Your task to perform on an android device: What's the weather? Image 0: 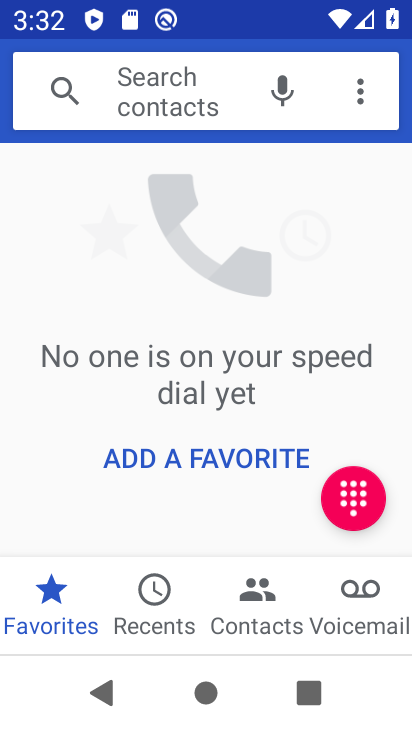
Step 0: drag from (211, 551) to (294, 22)
Your task to perform on an android device: What's the weather? Image 1: 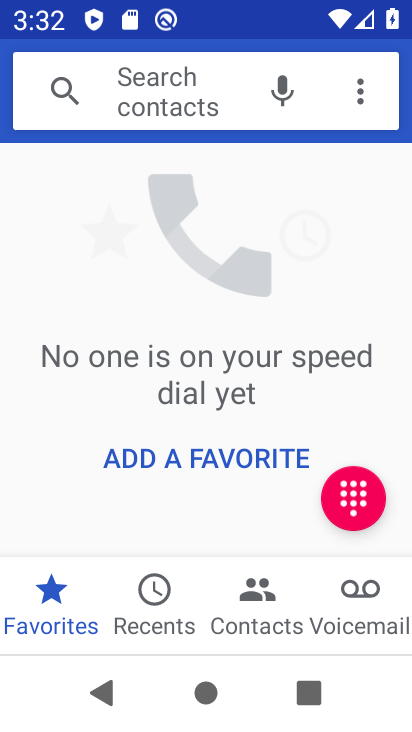
Step 1: press home button
Your task to perform on an android device: What's the weather? Image 2: 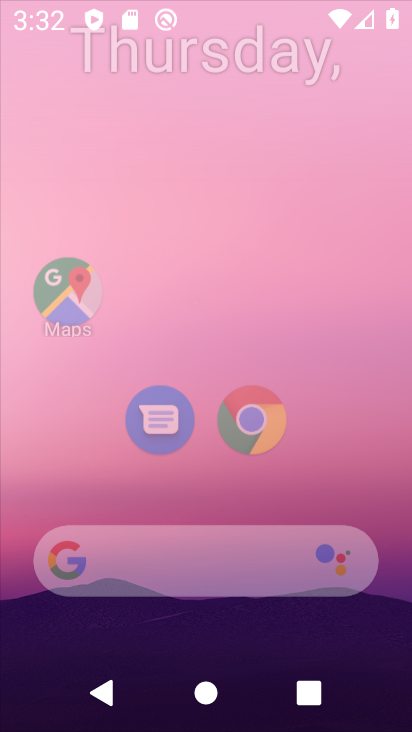
Step 2: drag from (294, 22) to (406, 403)
Your task to perform on an android device: What's the weather? Image 3: 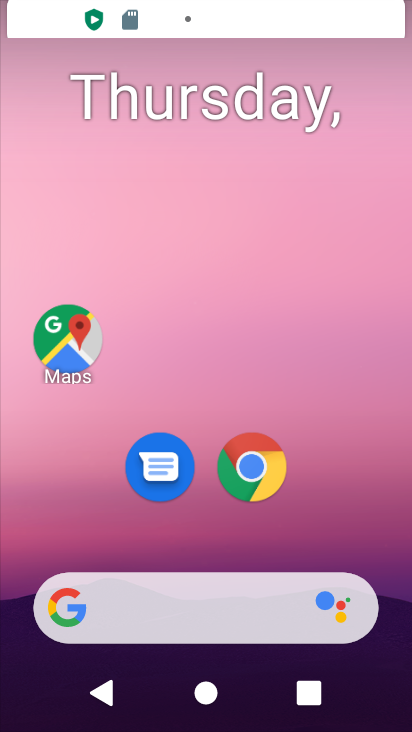
Step 3: click (197, 580)
Your task to perform on an android device: What's the weather? Image 4: 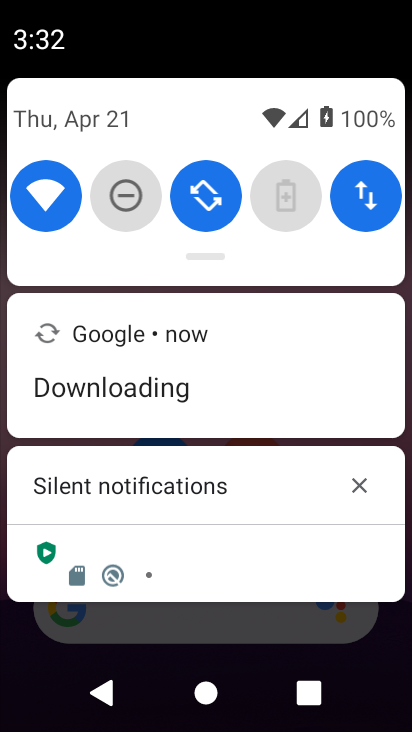
Step 4: drag from (234, 660) to (334, 57)
Your task to perform on an android device: What's the weather? Image 5: 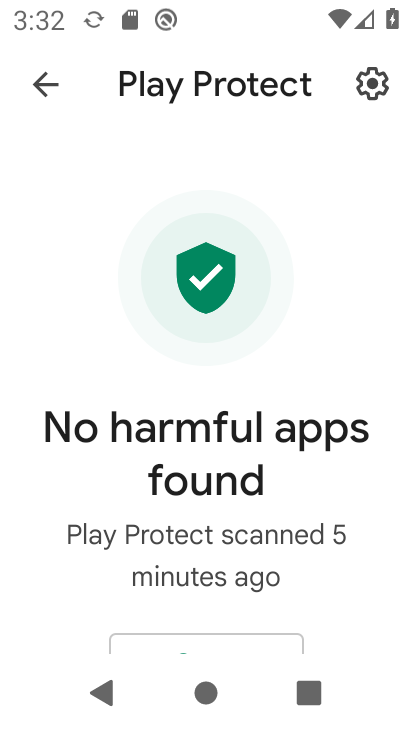
Step 5: press home button
Your task to perform on an android device: What's the weather? Image 6: 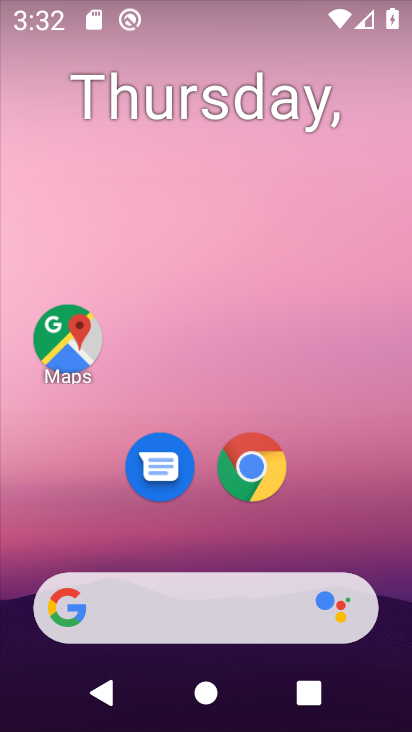
Step 6: drag from (188, 405) to (229, 17)
Your task to perform on an android device: What's the weather? Image 7: 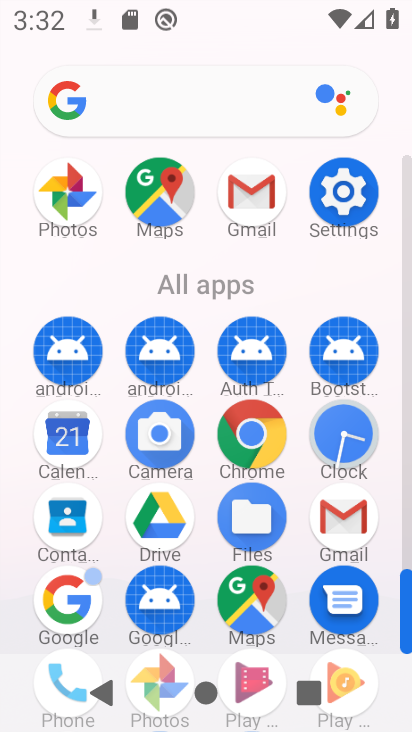
Step 7: click (187, 107)
Your task to perform on an android device: What's the weather? Image 8: 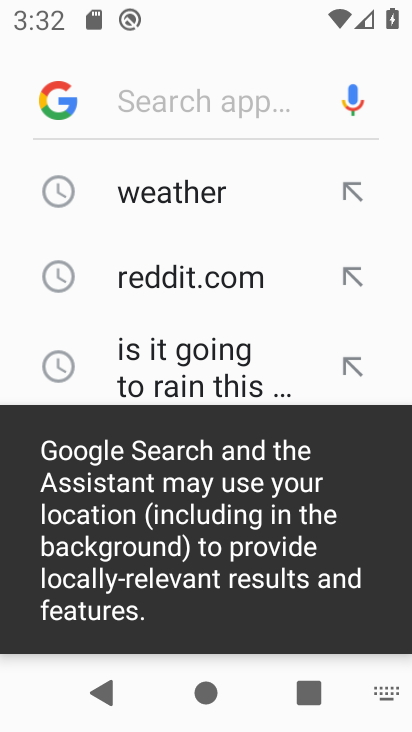
Step 8: click (170, 208)
Your task to perform on an android device: What's the weather? Image 9: 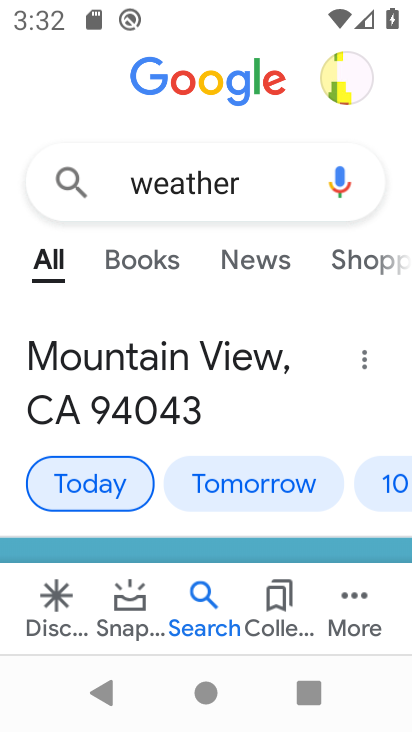
Step 9: task complete